Your task to perform on an android device: Go to Yahoo.com Image 0: 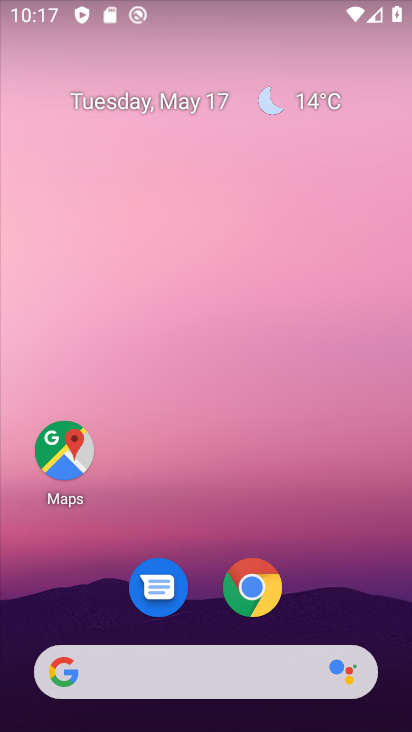
Step 0: drag from (370, 656) to (162, 295)
Your task to perform on an android device: Go to Yahoo.com Image 1: 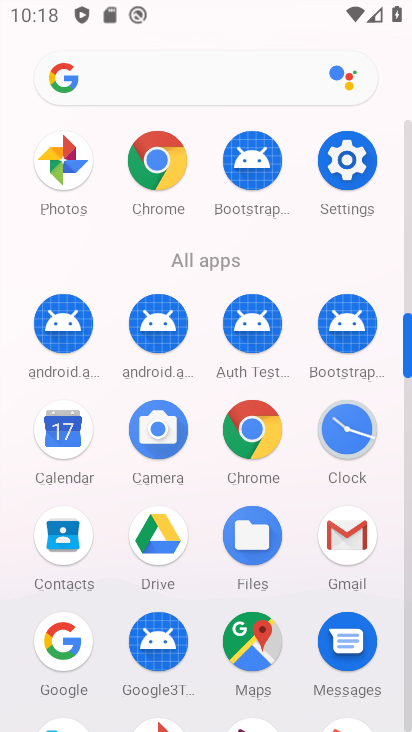
Step 1: click (166, 168)
Your task to perform on an android device: Go to Yahoo.com Image 2: 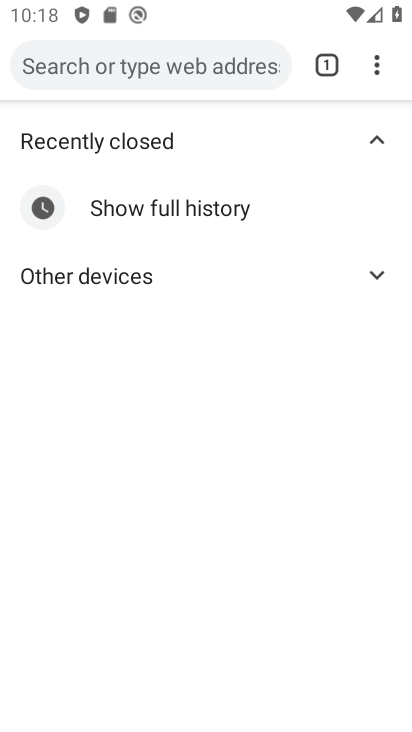
Step 2: drag from (369, 60) to (159, 133)
Your task to perform on an android device: Go to Yahoo.com Image 3: 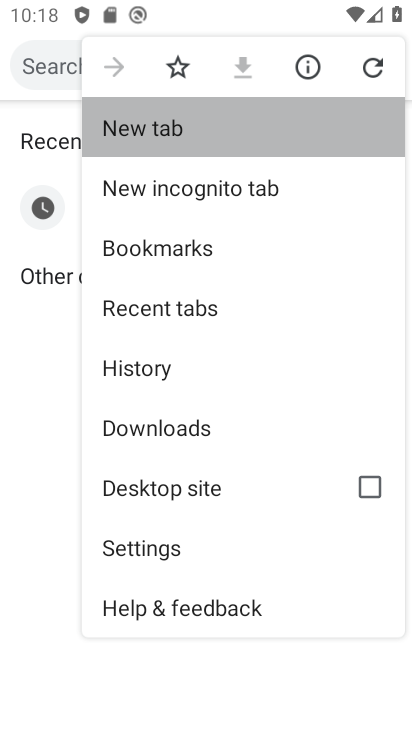
Step 3: click (159, 133)
Your task to perform on an android device: Go to Yahoo.com Image 4: 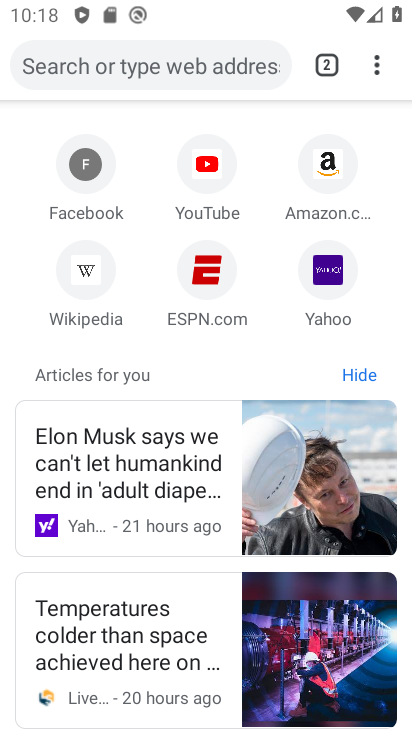
Step 4: click (323, 272)
Your task to perform on an android device: Go to Yahoo.com Image 5: 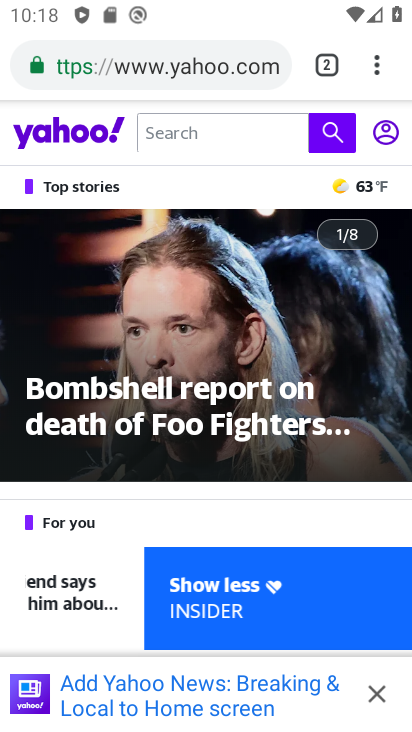
Step 5: task complete